Your task to perform on an android device: Show me recent news Image 0: 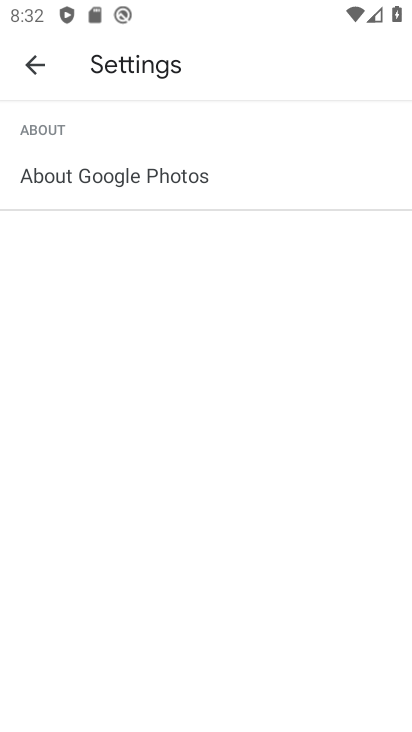
Step 0: press back button
Your task to perform on an android device: Show me recent news Image 1: 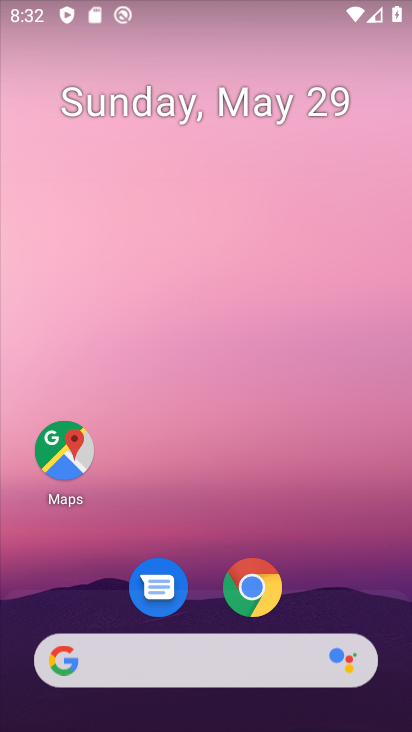
Step 1: click (137, 669)
Your task to perform on an android device: Show me recent news Image 2: 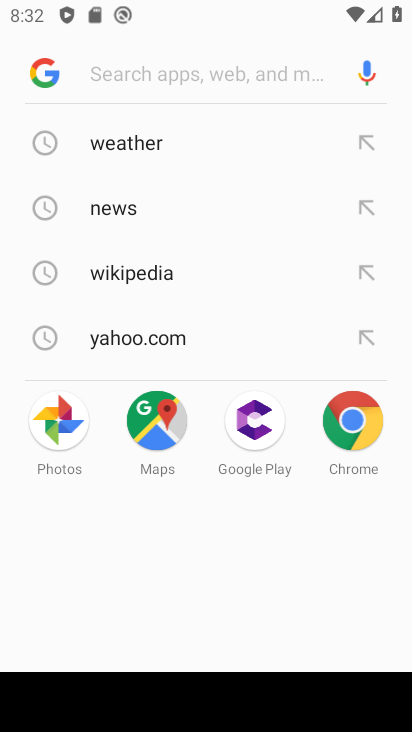
Step 2: click (139, 79)
Your task to perform on an android device: Show me recent news Image 3: 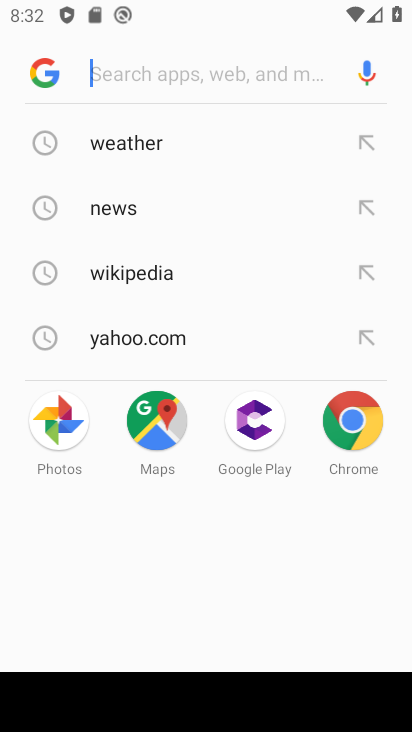
Step 3: type "recent news"
Your task to perform on an android device: Show me recent news Image 4: 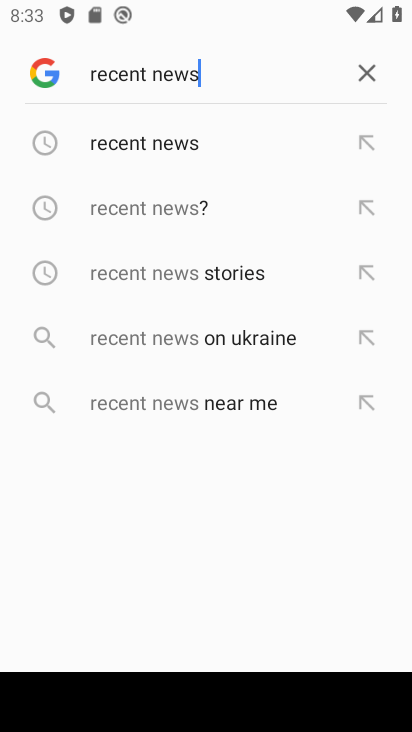
Step 4: click (136, 146)
Your task to perform on an android device: Show me recent news Image 5: 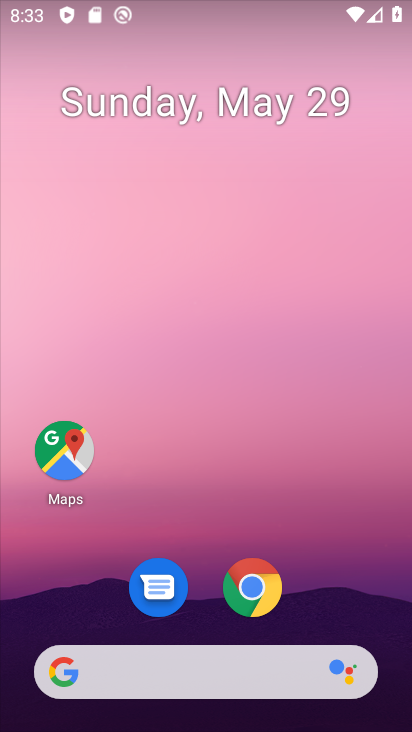
Step 5: click (144, 669)
Your task to perform on an android device: Show me recent news Image 6: 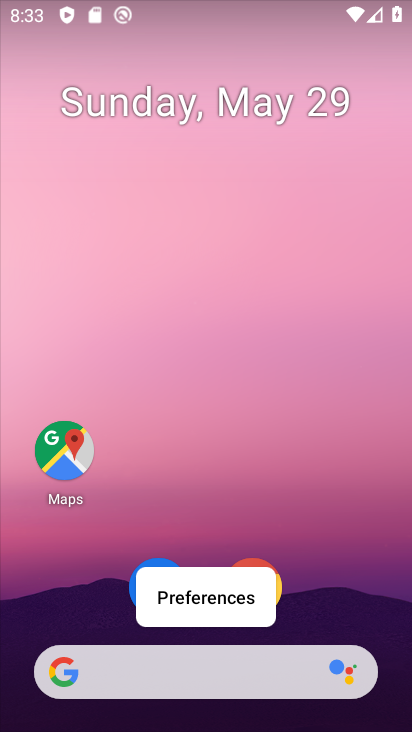
Step 6: click (170, 664)
Your task to perform on an android device: Show me recent news Image 7: 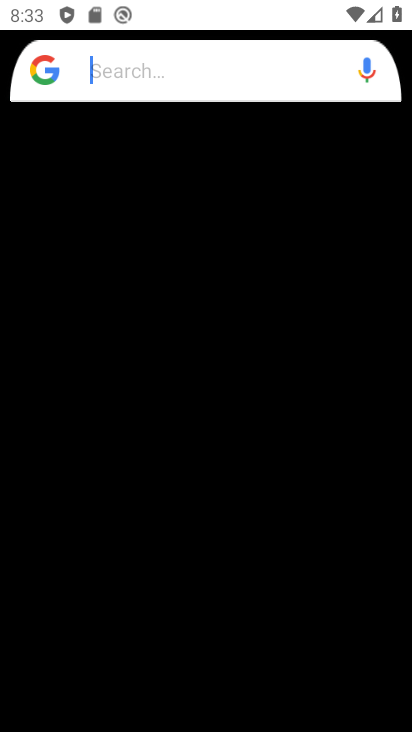
Step 7: click (181, 74)
Your task to perform on an android device: Show me recent news Image 8: 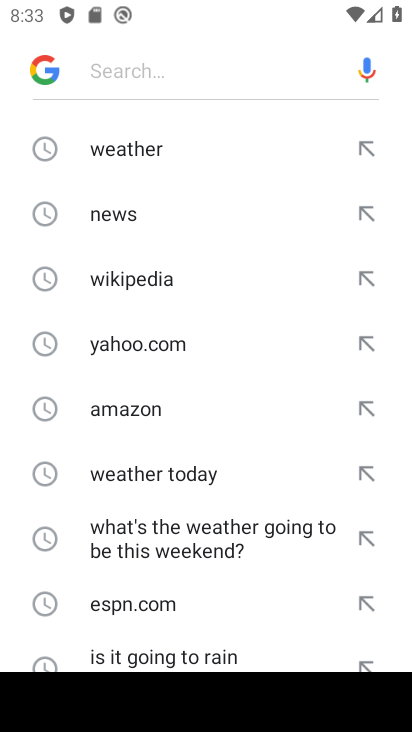
Step 8: click (100, 211)
Your task to perform on an android device: Show me recent news Image 9: 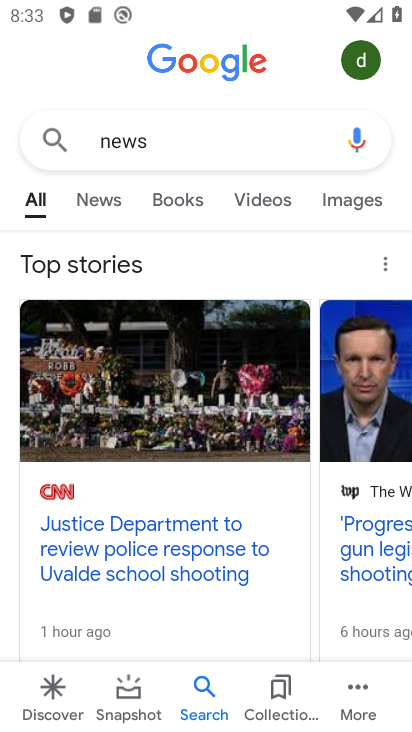
Step 9: task complete